Your task to perform on an android device: turn on improve location accuracy Image 0: 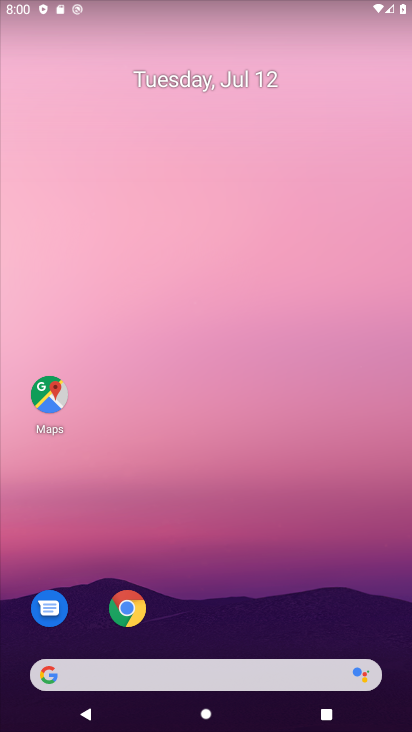
Step 0: drag from (155, 672) to (317, 150)
Your task to perform on an android device: turn on improve location accuracy Image 1: 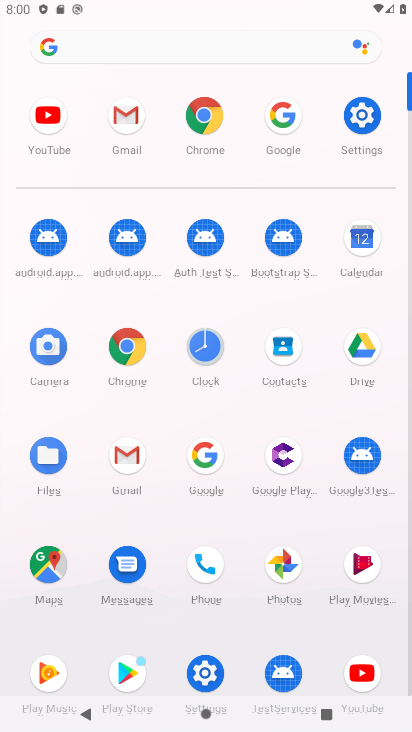
Step 1: click (357, 126)
Your task to perform on an android device: turn on improve location accuracy Image 2: 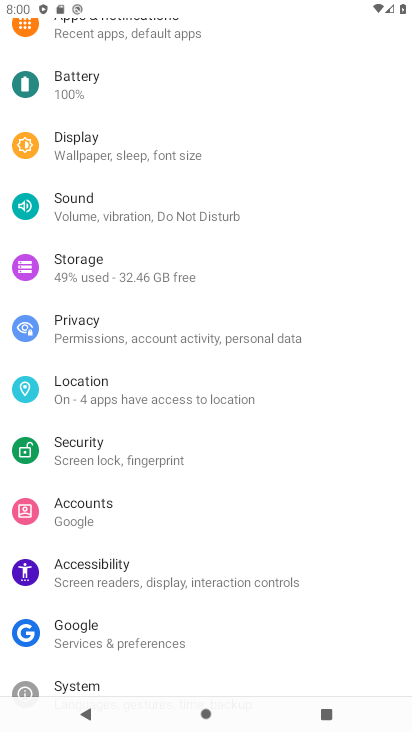
Step 2: click (144, 389)
Your task to perform on an android device: turn on improve location accuracy Image 3: 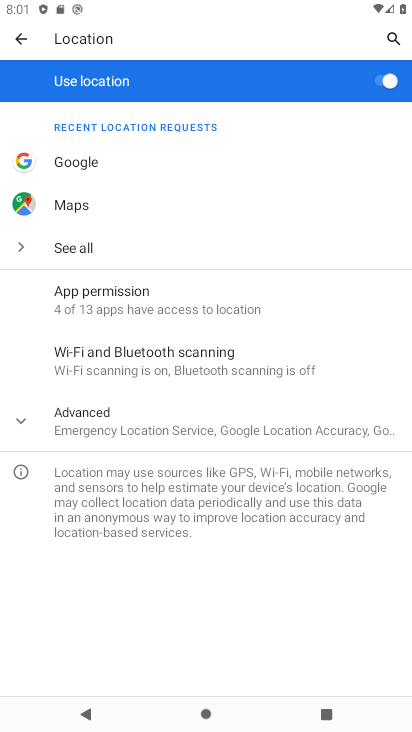
Step 3: click (95, 426)
Your task to perform on an android device: turn on improve location accuracy Image 4: 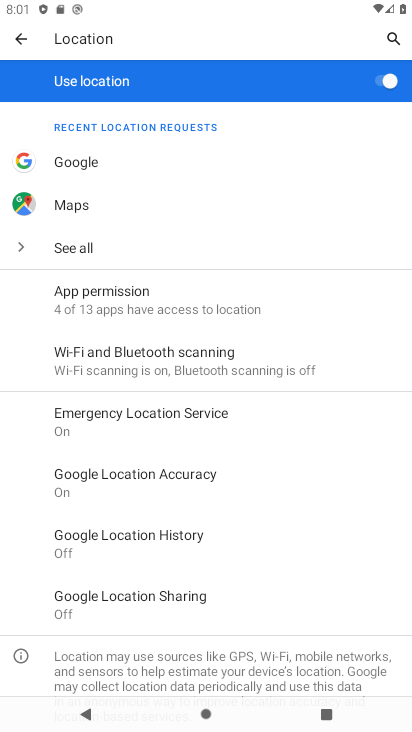
Step 4: click (151, 469)
Your task to perform on an android device: turn on improve location accuracy Image 5: 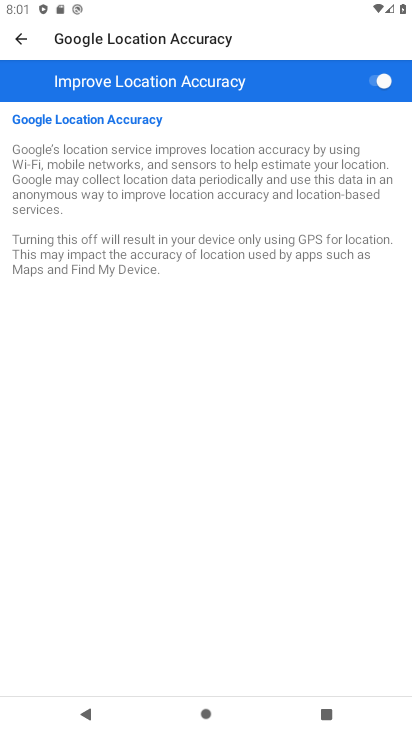
Step 5: task complete